Your task to perform on an android device: Go to location settings Image 0: 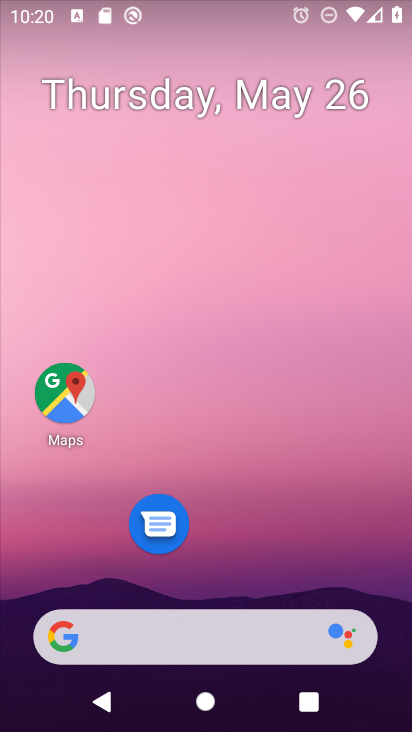
Step 0: drag from (286, 534) to (310, 48)
Your task to perform on an android device: Go to location settings Image 1: 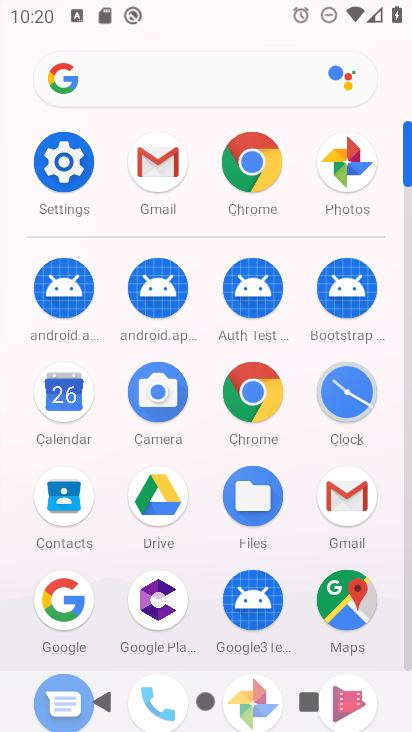
Step 1: click (64, 165)
Your task to perform on an android device: Go to location settings Image 2: 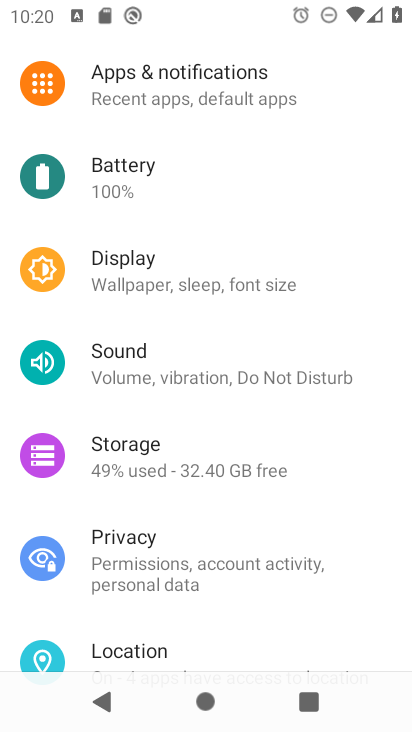
Step 2: drag from (234, 483) to (211, 88)
Your task to perform on an android device: Go to location settings Image 3: 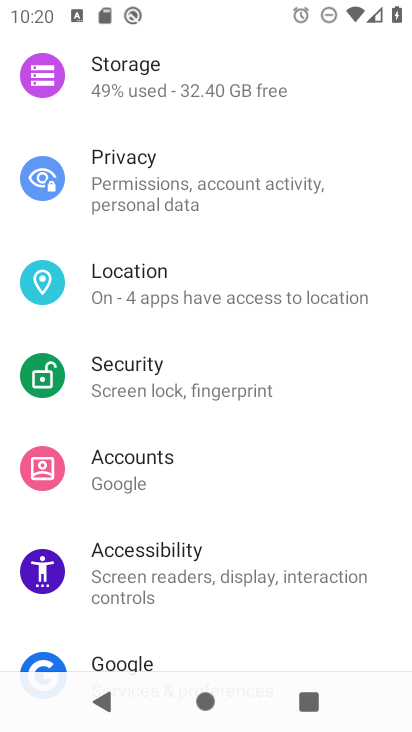
Step 3: click (209, 285)
Your task to perform on an android device: Go to location settings Image 4: 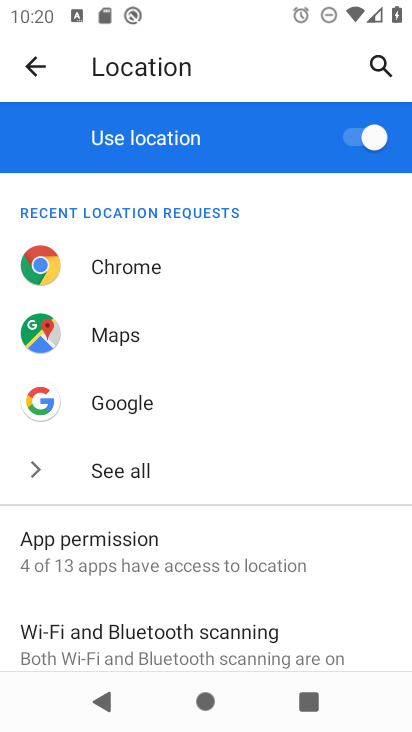
Step 4: task complete